Your task to perform on an android device: turn notification dots off Image 0: 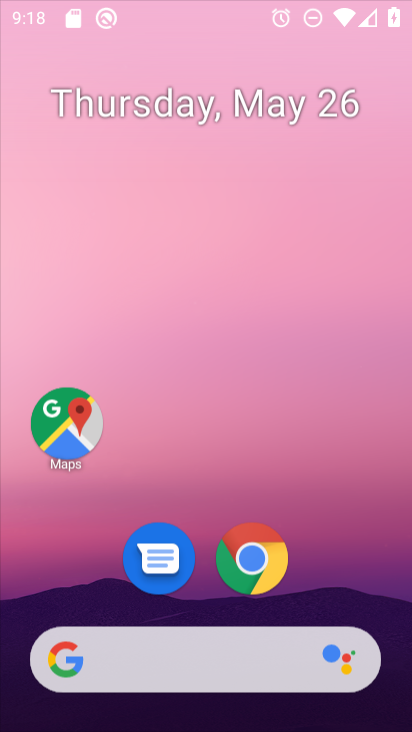
Step 0: click (308, 131)
Your task to perform on an android device: turn notification dots off Image 1: 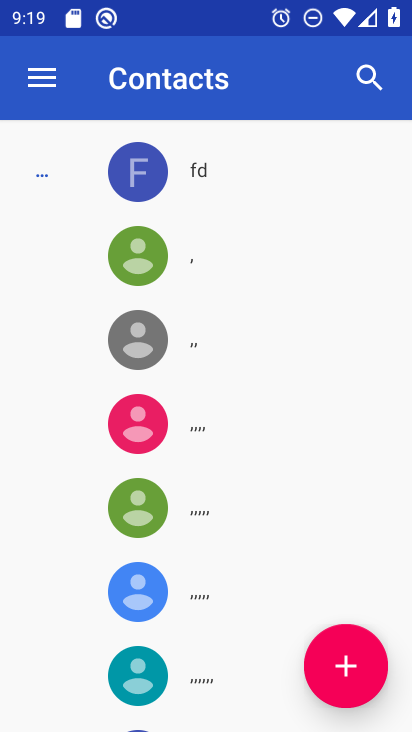
Step 1: press home button
Your task to perform on an android device: turn notification dots off Image 2: 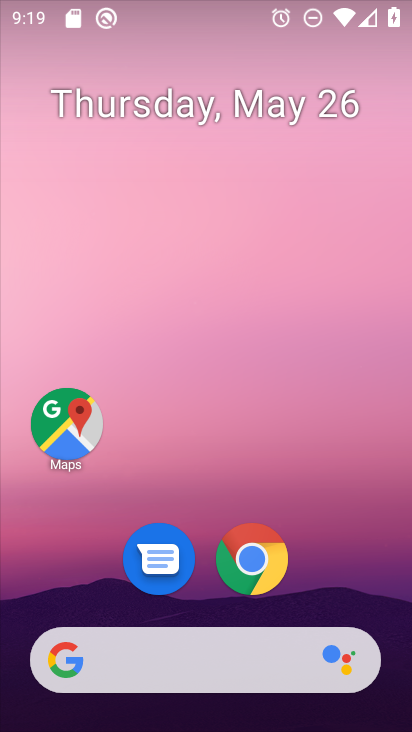
Step 2: drag from (203, 591) to (234, 63)
Your task to perform on an android device: turn notification dots off Image 3: 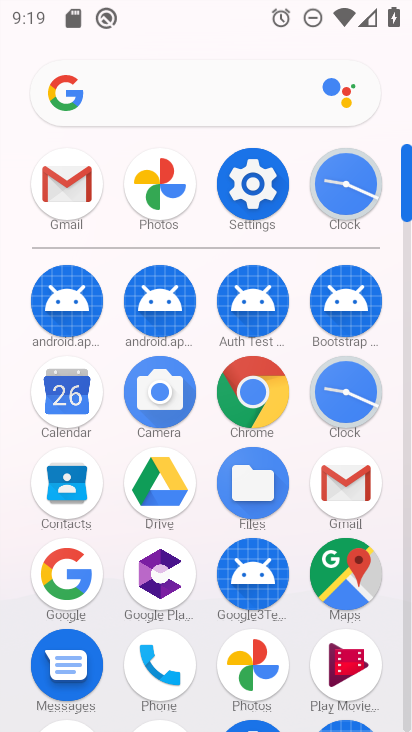
Step 3: click (256, 184)
Your task to perform on an android device: turn notification dots off Image 4: 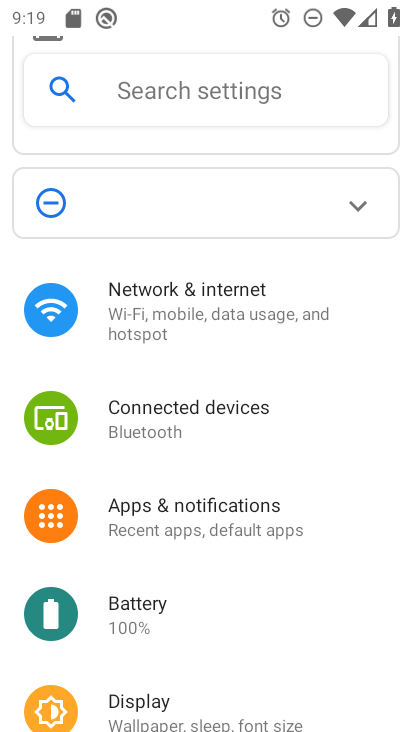
Step 4: click (192, 511)
Your task to perform on an android device: turn notification dots off Image 5: 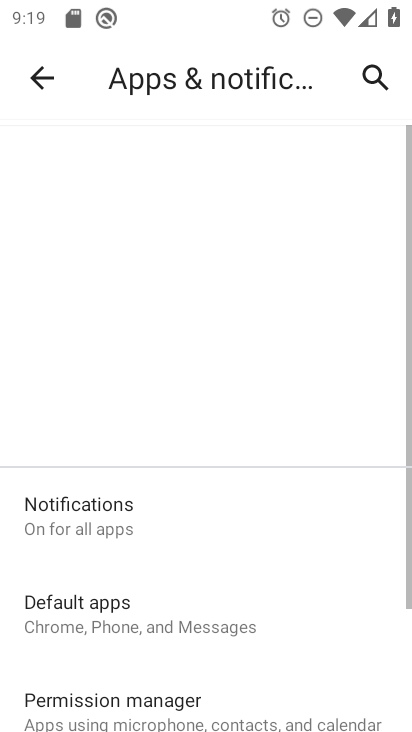
Step 5: click (109, 519)
Your task to perform on an android device: turn notification dots off Image 6: 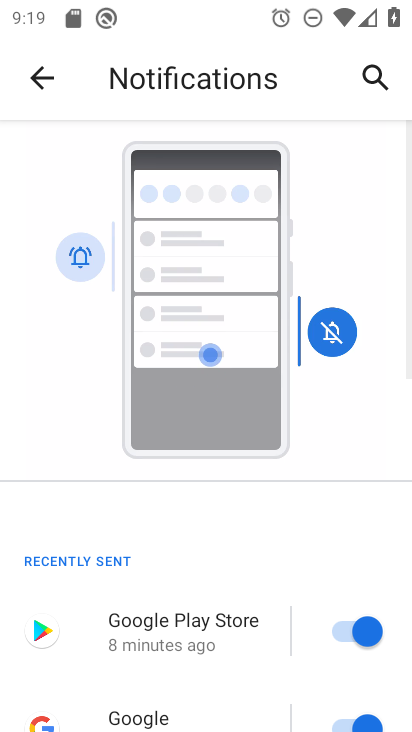
Step 6: drag from (282, 656) to (319, 29)
Your task to perform on an android device: turn notification dots off Image 7: 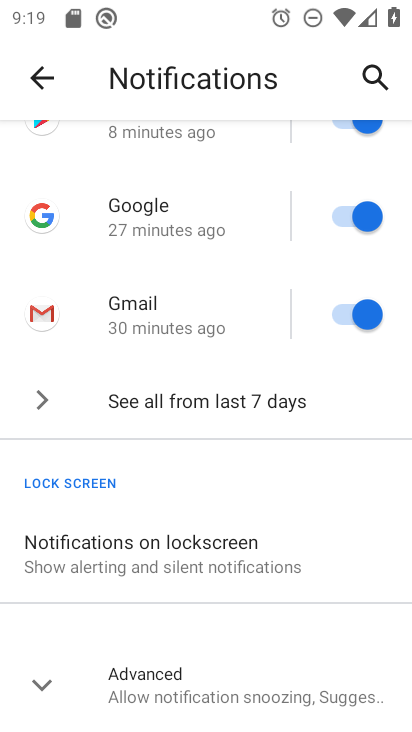
Step 7: click (159, 698)
Your task to perform on an android device: turn notification dots off Image 8: 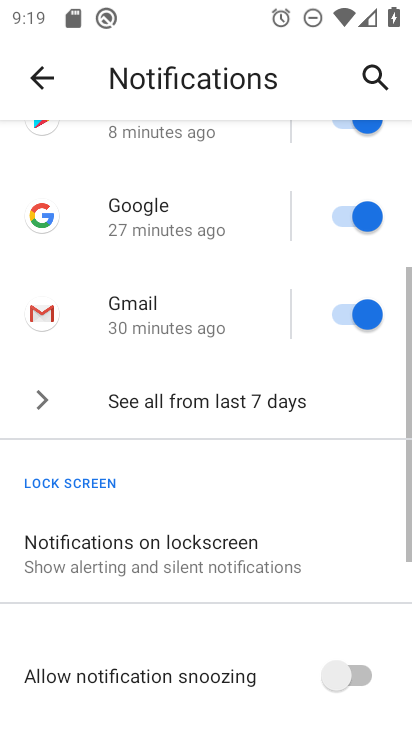
Step 8: drag from (279, 623) to (296, 275)
Your task to perform on an android device: turn notification dots off Image 9: 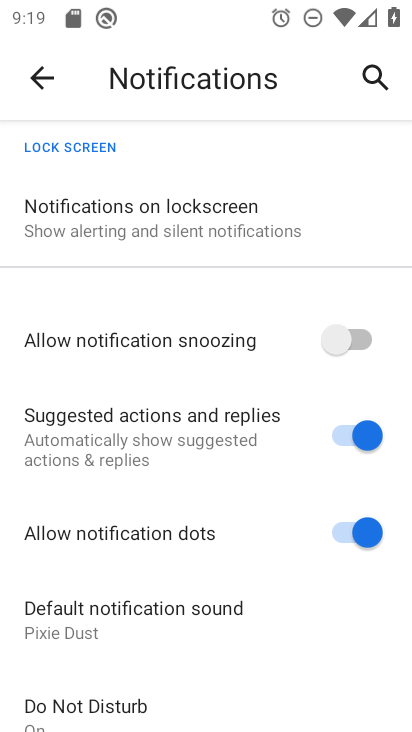
Step 9: click (357, 531)
Your task to perform on an android device: turn notification dots off Image 10: 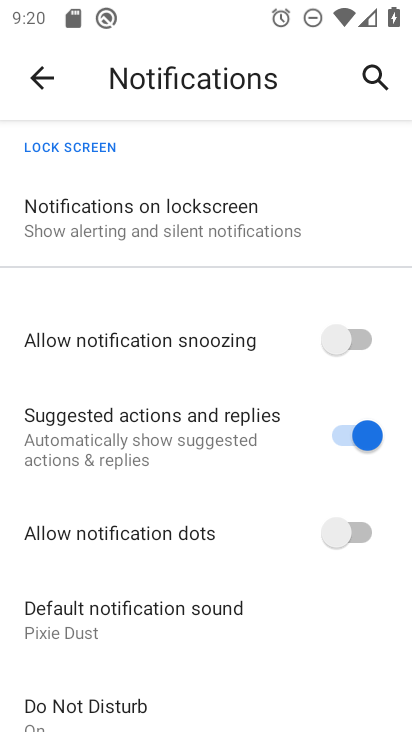
Step 10: task complete